Your task to perform on an android device: open a bookmark in the chrome app Image 0: 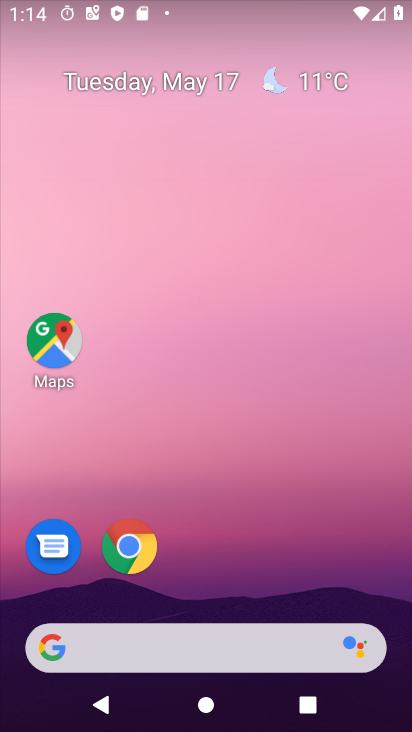
Step 0: click (129, 549)
Your task to perform on an android device: open a bookmark in the chrome app Image 1: 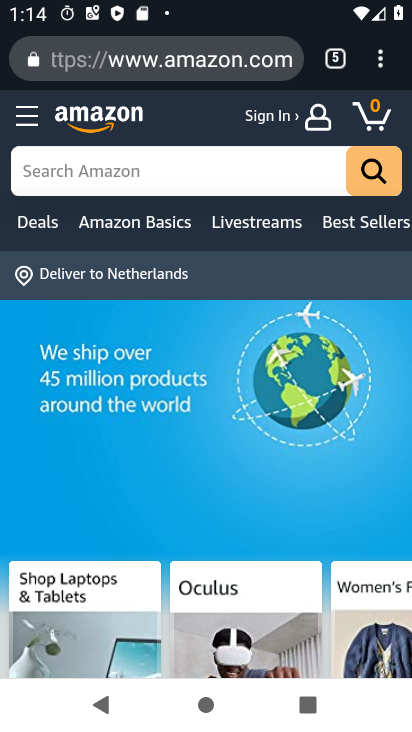
Step 1: task complete